Your task to perform on an android device: Open the stopwatch Image 0: 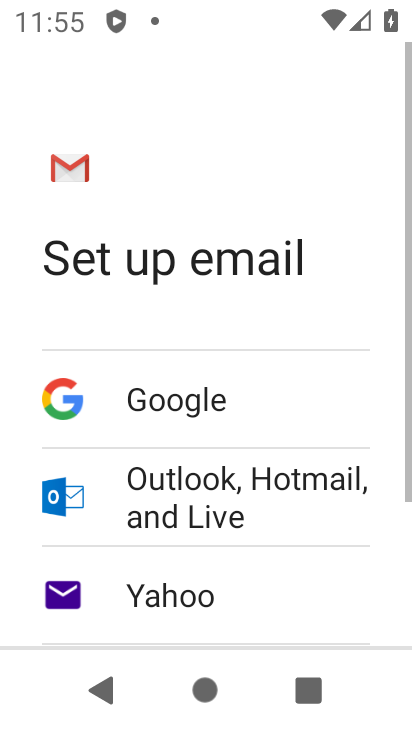
Step 0: press home button
Your task to perform on an android device: Open the stopwatch Image 1: 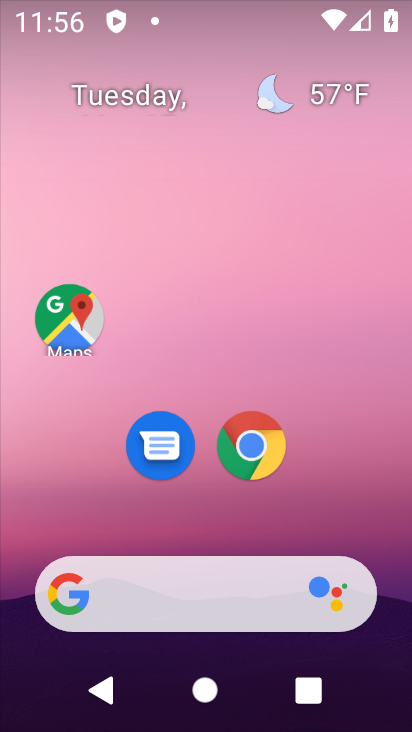
Step 1: drag from (351, 492) to (366, 147)
Your task to perform on an android device: Open the stopwatch Image 2: 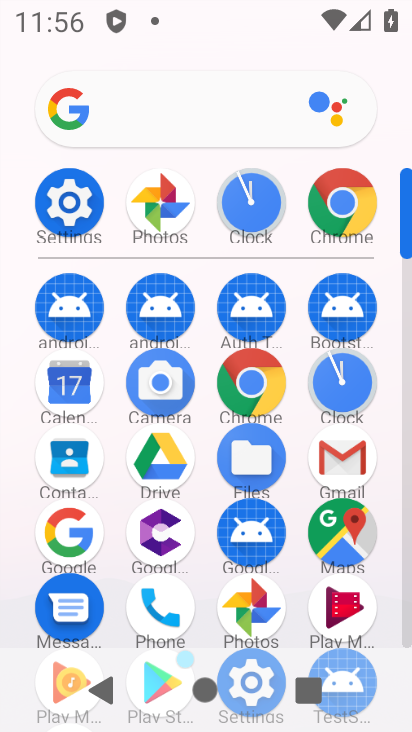
Step 2: click (255, 219)
Your task to perform on an android device: Open the stopwatch Image 3: 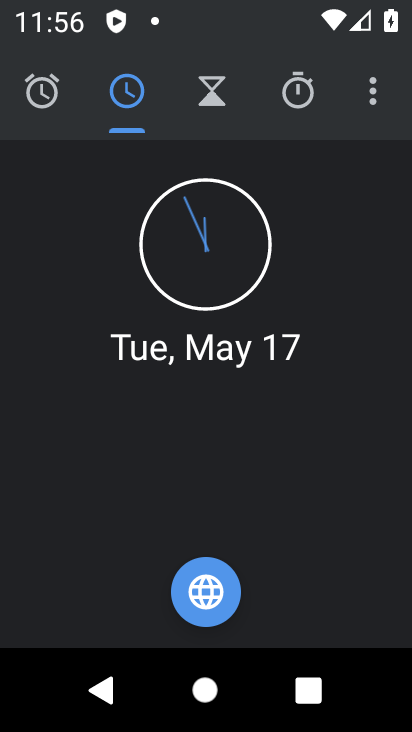
Step 3: click (296, 112)
Your task to perform on an android device: Open the stopwatch Image 4: 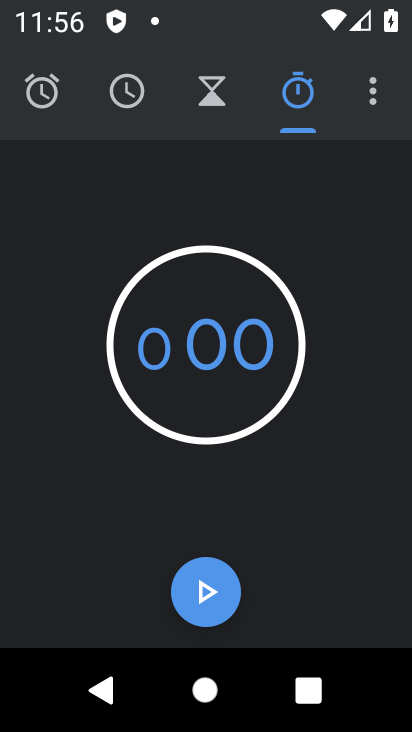
Step 4: task complete